Your task to perform on an android device: Is it going to rain tomorrow? Image 0: 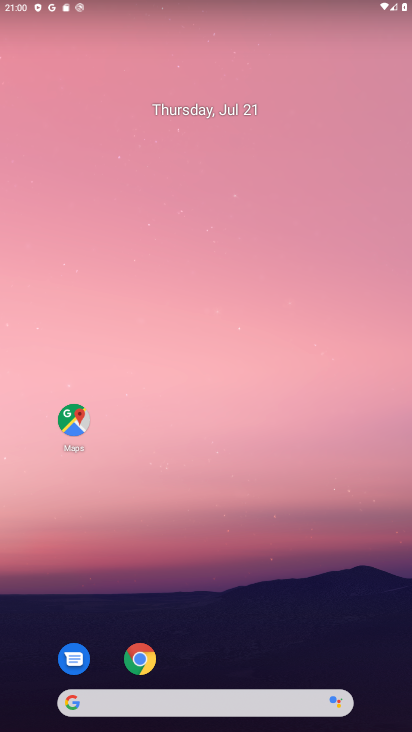
Step 0: press home button
Your task to perform on an android device: Is it going to rain tomorrow? Image 1: 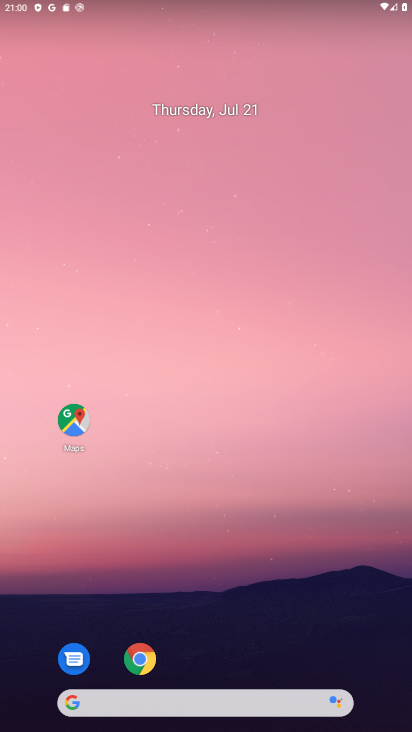
Step 1: press home button
Your task to perform on an android device: Is it going to rain tomorrow? Image 2: 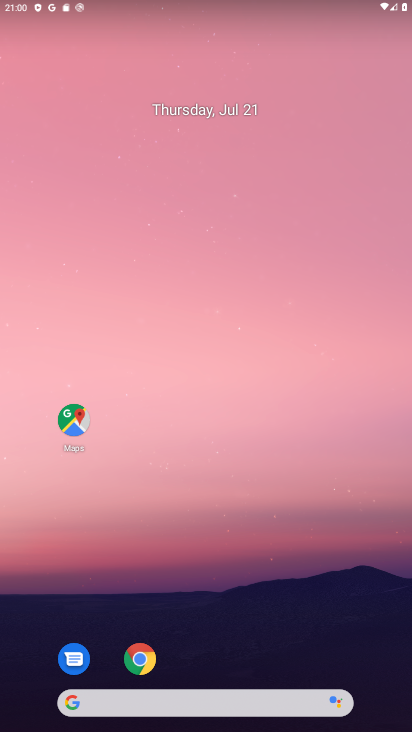
Step 2: click (131, 673)
Your task to perform on an android device: Is it going to rain tomorrow? Image 3: 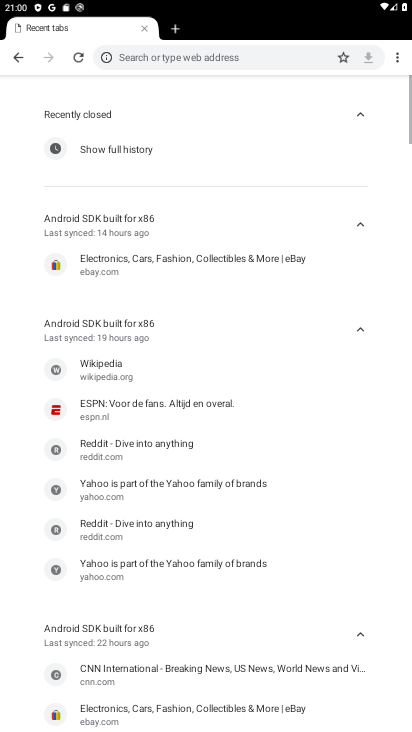
Step 3: click (255, 56)
Your task to perform on an android device: Is it going to rain tomorrow? Image 4: 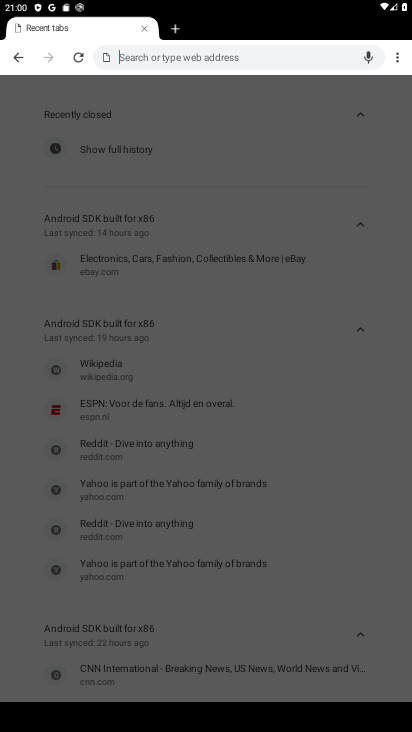
Step 4: type "Amazon"
Your task to perform on an android device: Is it going to rain tomorrow? Image 5: 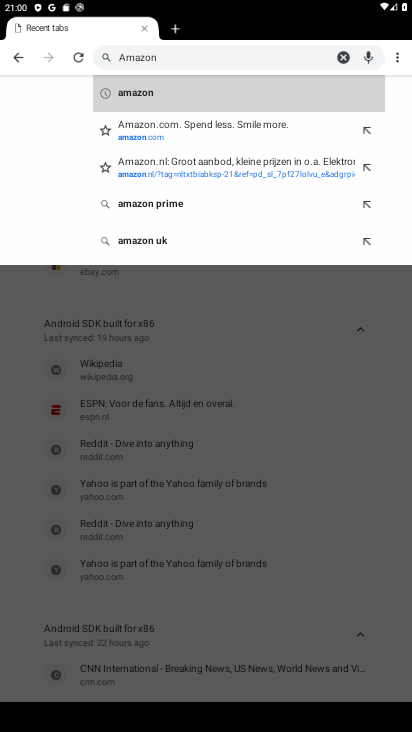
Step 5: click (344, 57)
Your task to perform on an android device: Is it going to rain tomorrow? Image 6: 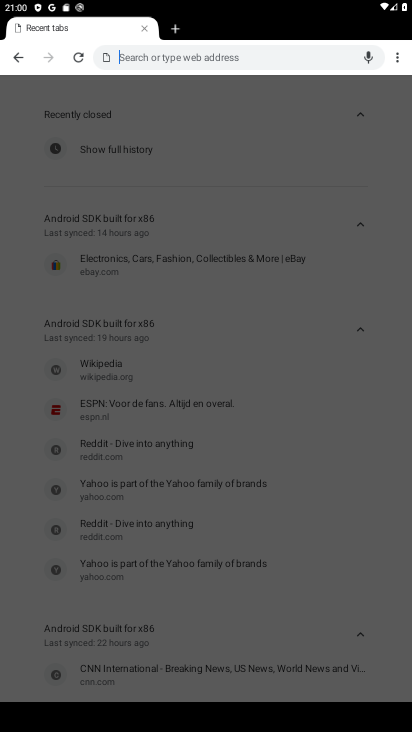
Step 6: type "Is it going to rain tomorrow?"
Your task to perform on an android device: Is it going to rain tomorrow? Image 7: 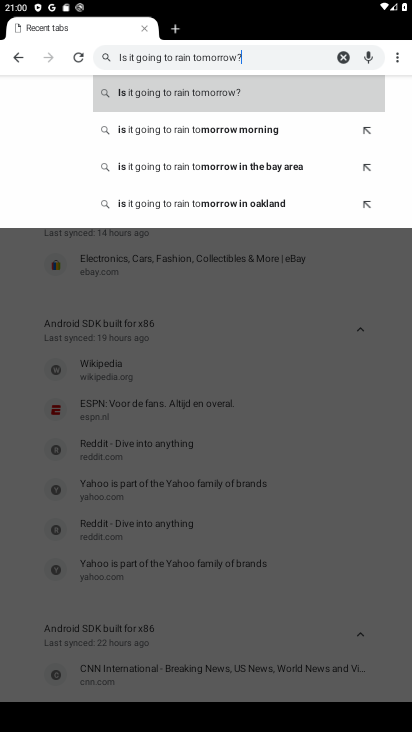
Step 7: click (158, 86)
Your task to perform on an android device: Is it going to rain tomorrow? Image 8: 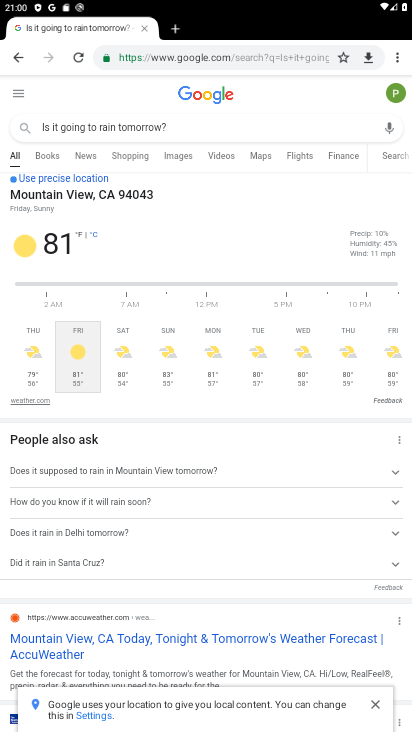
Step 8: task complete